Your task to perform on an android device: turn on bluetooth scan Image 0: 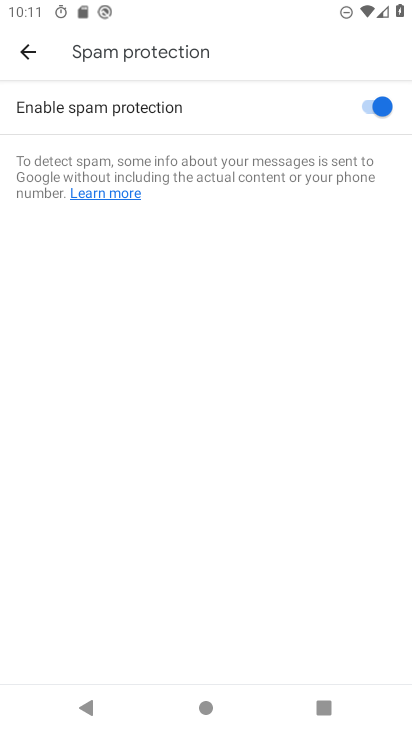
Step 0: press home button
Your task to perform on an android device: turn on bluetooth scan Image 1: 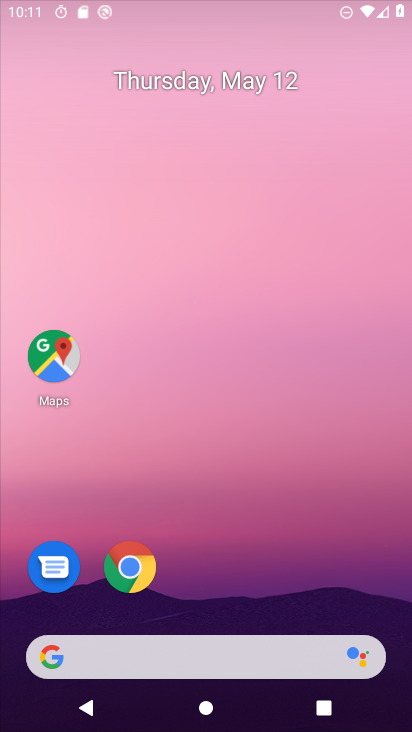
Step 1: drag from (186, 635) to (228, 106)
Your task to perform on an android device: turn on bluetooth scan Image 2: 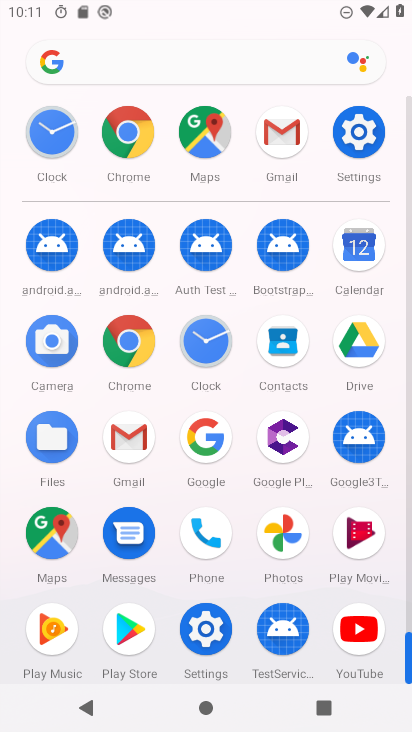
Step 2: click (367, 159)
Your task to perform on an android device: turn on bluetooth scan Image 3: 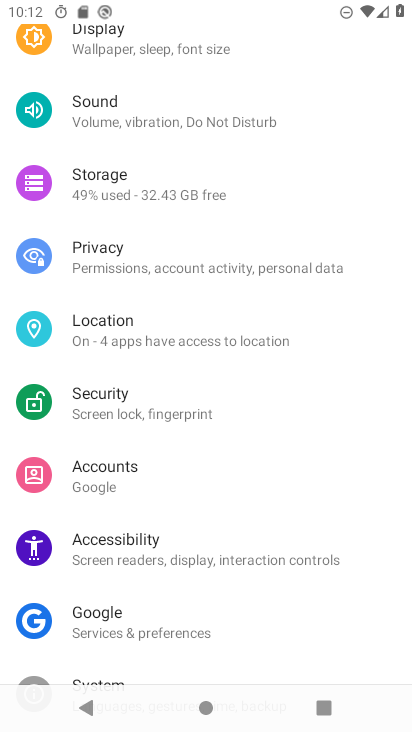
Step 3: drag from (216, 207) to (157, 668)
Your task to perform on an android device: turn on bluetooth scan Image 4: 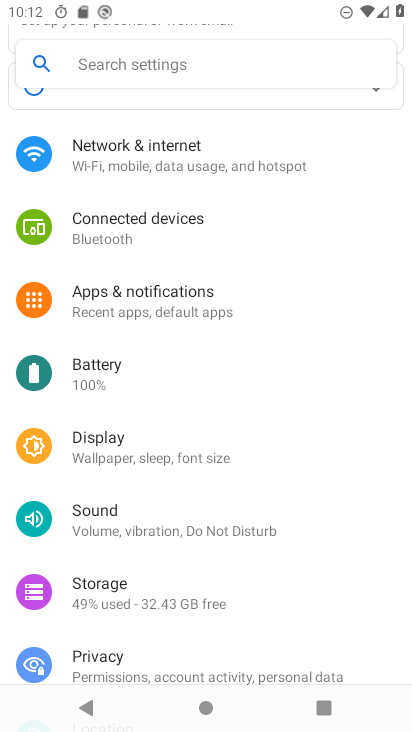
Step 4: click (143, 373)
Your task to perform on an android device: turn on bluetooth scan Image 5: 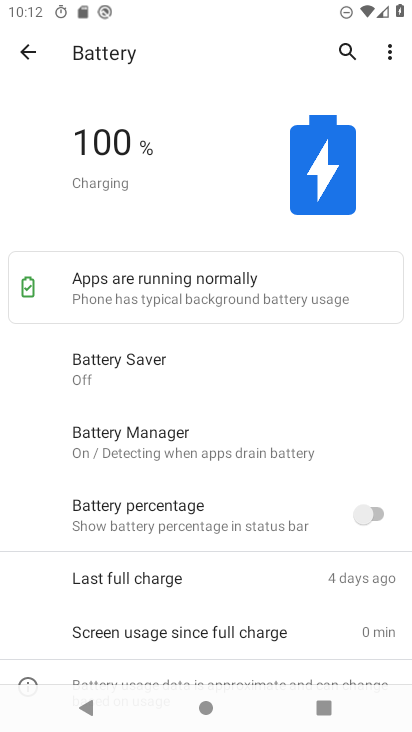
Step 5: click (41, 55)
Your task to perform on an android device: turn on bluetooth scan Image 6: 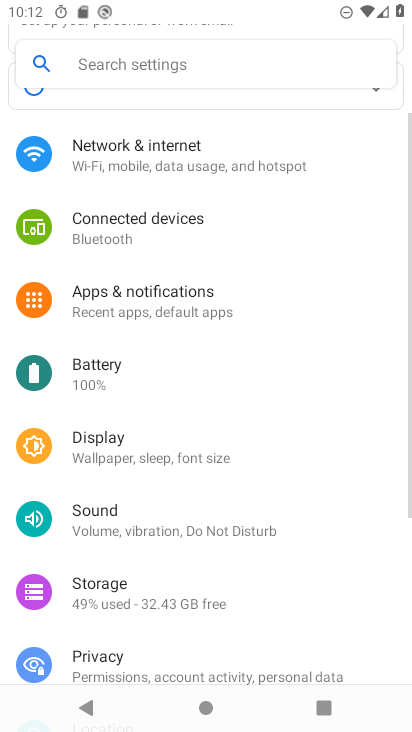
Step 6: drag from (213, 261) to (159, 548)
Your task to perform on an android device: turn on bluetooth scan Image 7: 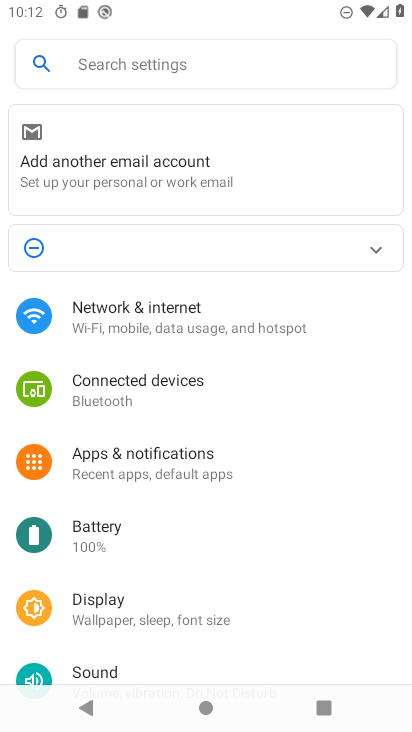
Step 7: click (185, 399)
Your task to perform on an android device: turn on bluetooth scan Image 8: 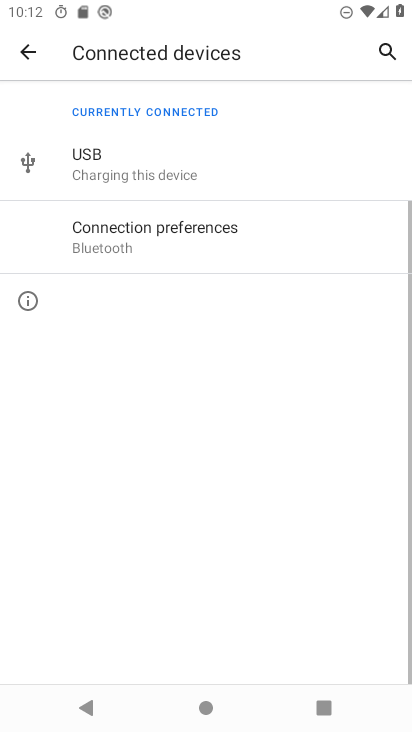
Step 8: click (241, 230)
Your task to perform on an android device: turn on bluetooth scan Image 9: 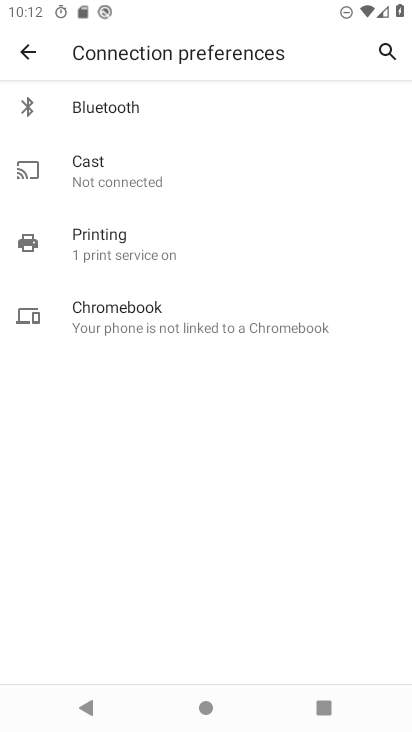
Step 9: click (248, 96)
Your task to perform on an android device: turn on bluetooth scan Image 10: 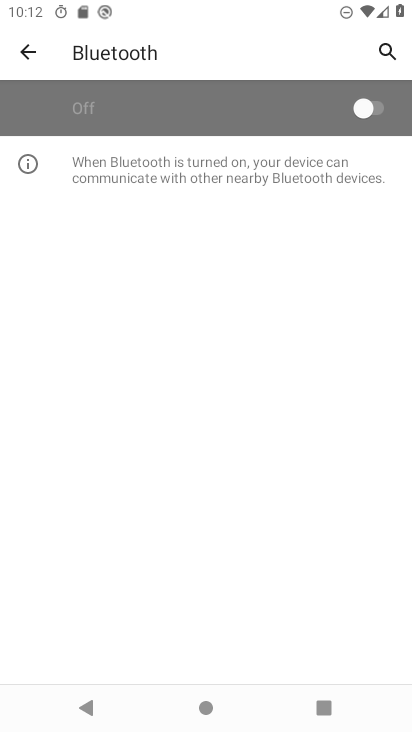
Step 10: click (252, 114)
Your task to perform on an android device: turn on bluetooth scan Image 11: 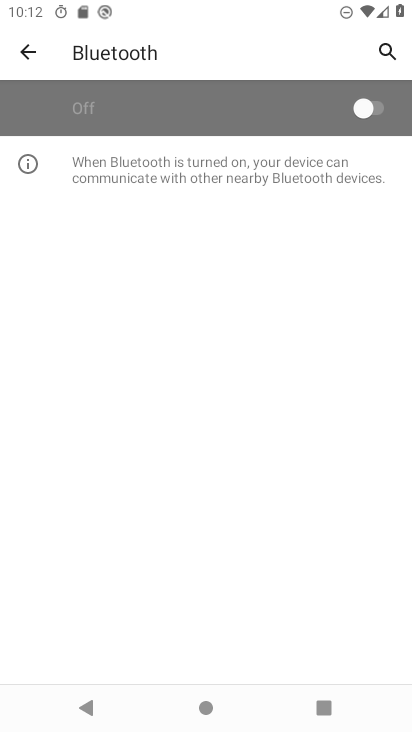
Step 11: click (252, 114)
Your task to perform on an android device: turn on bluetooth scan Image 12: 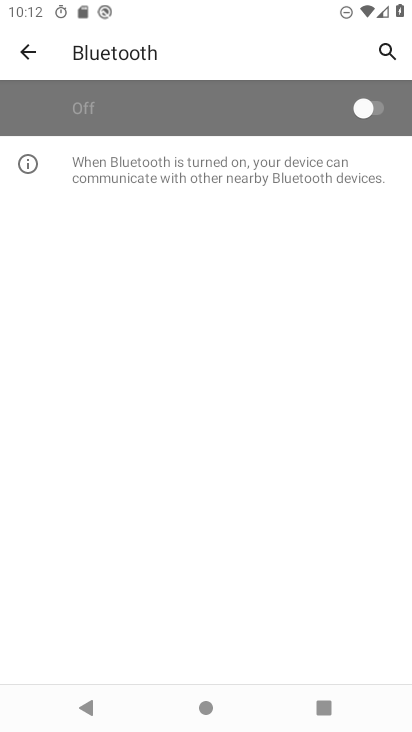
Step 12: task complete